Your task to perform on an android device: Open CNN.com Image 0: 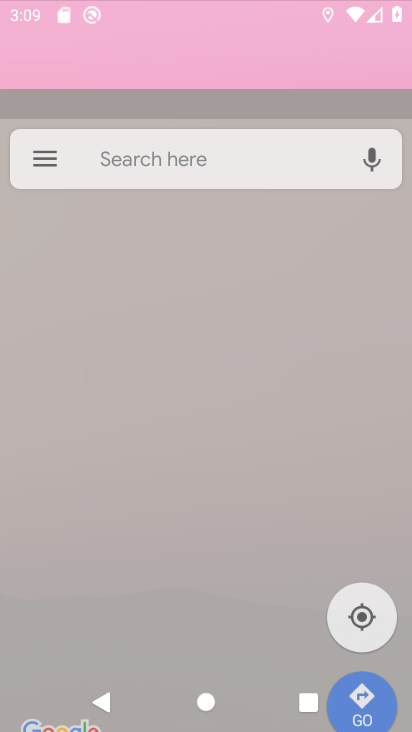
Step 0: drag from (395, 682) to (367, 385)
Your task to perform on an android device: Open CNN.com Image 1: 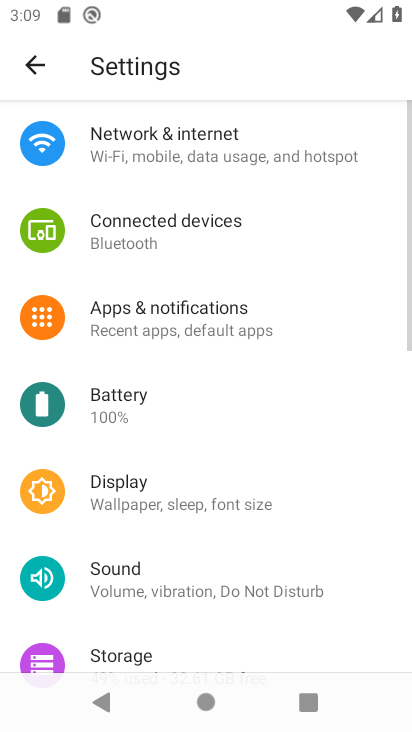
Step 1: press home button
Your task to perform on an android device: Open CNN.com Image 2: 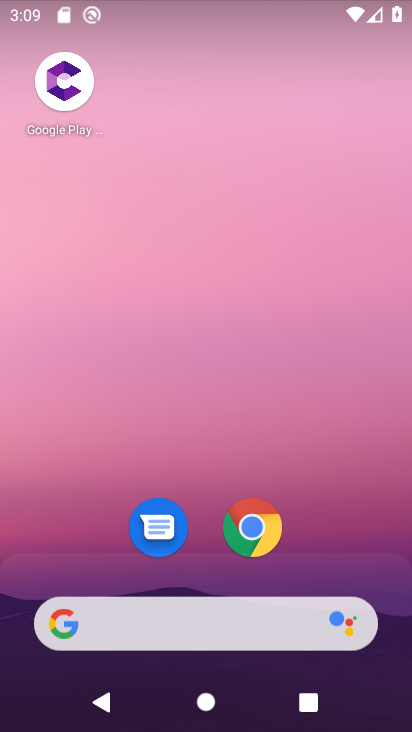
Step 2: click (254, 528)
Your task to perform on an android device: Open CNN.com Image 3: 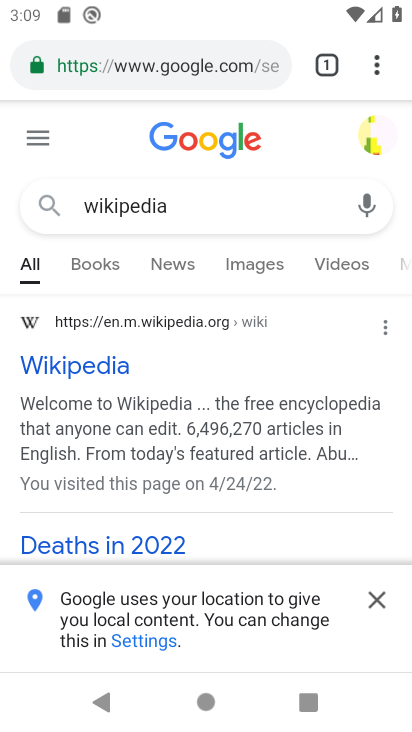
Step 3: click (280, 67)
Your task to perform on an android device: Open CNN.com Image 4: 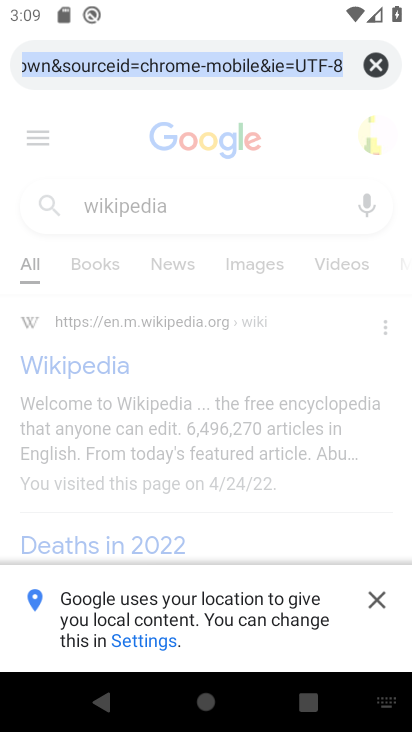
Step 4: click (368, 68)
Your task to perform on an android device: Open CNN.com Image 5: 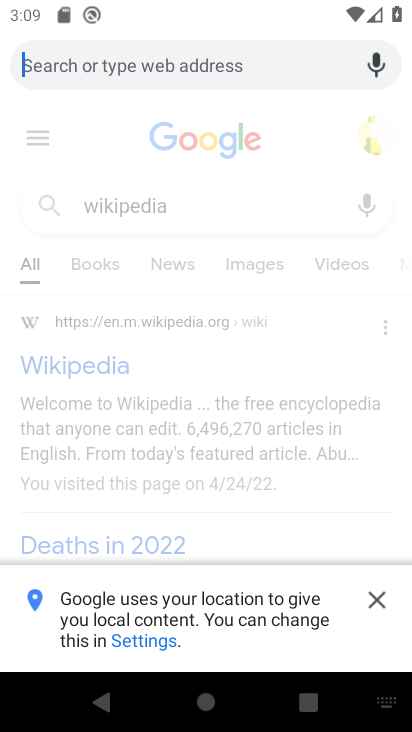
Step 5: type "CNN.com"
Your task to perform on an android device: Open CNN.com Image 6: 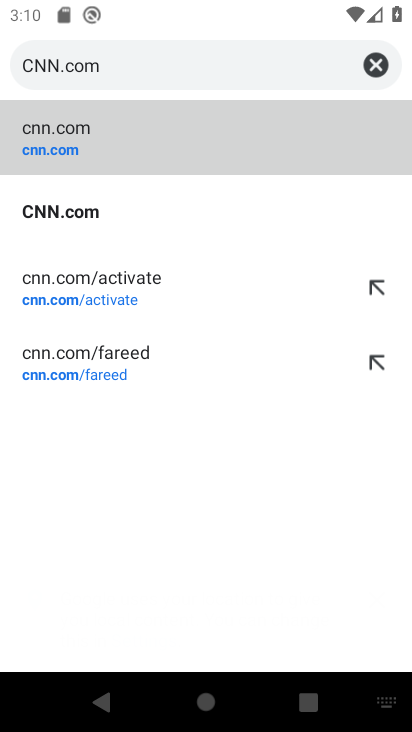
Step 6: click (49, 213)
Your task to perform on an android device: Open CNN.com Image 7: 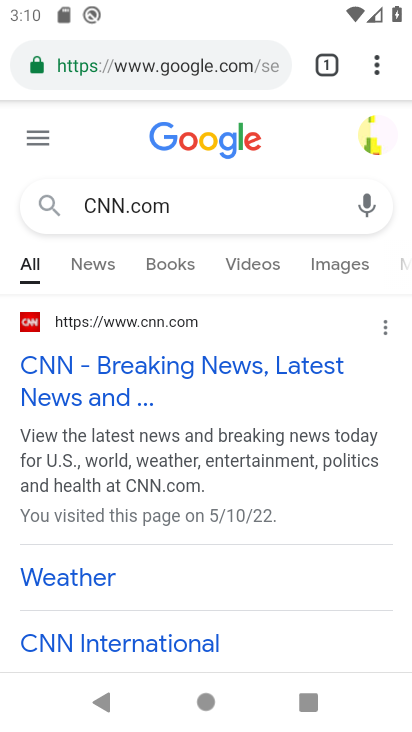
Step 7: click (80, 370)
Your task to perform on an android device: Open CNN.com Image 8: 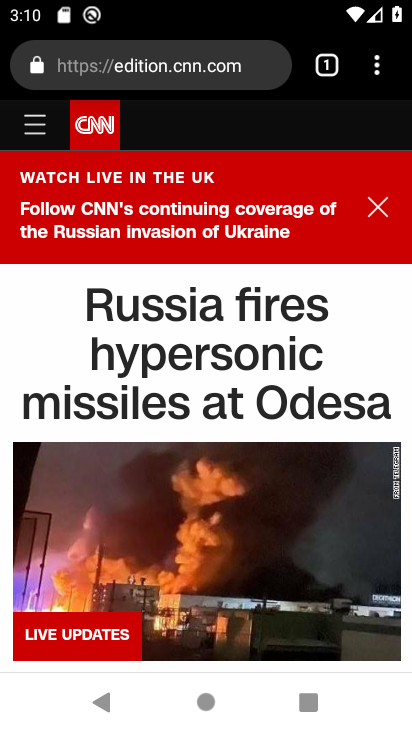
Step 8: task complete